Your task to perform on an android device: Open notification settings Image 0: 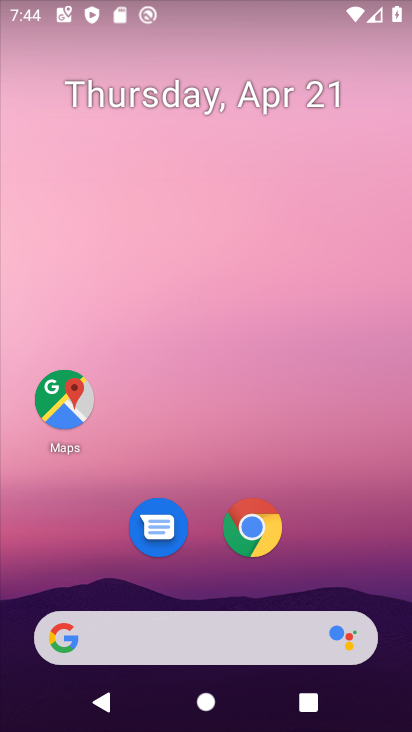
Step 0: drag from (208, 317) to (225, 0)
Your task to perform on an android device: Open notification settings Image 1: 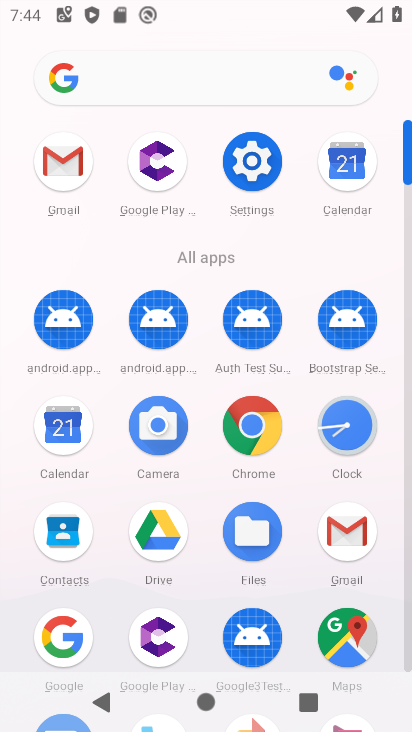
Step 1: click (248, 155)
Your task to perform on an android device: Open notification settings Image 2: 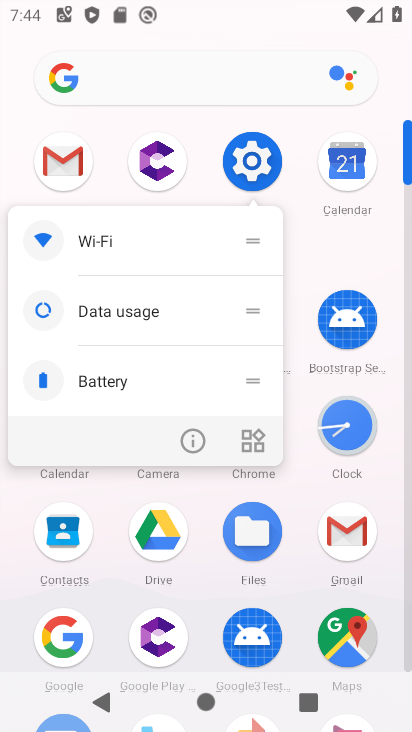
Step 2: click (241, 160)
Your task to perform on an android device: Open notification settings Image 3: 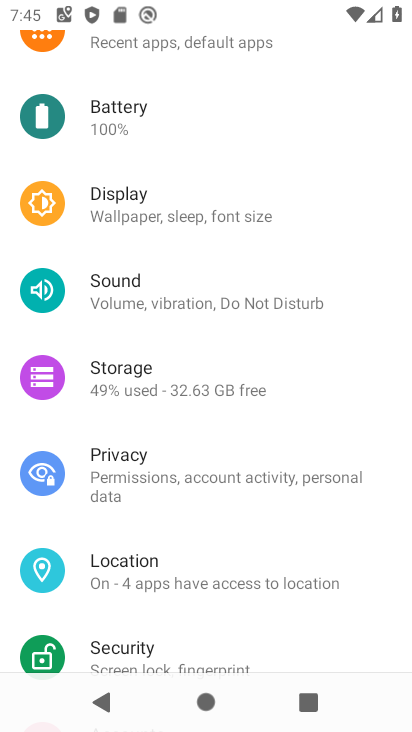
Step 3: drag from (207, 289) to (216, 588)
Your task to perform on an android device: Open notification settings Image 4: 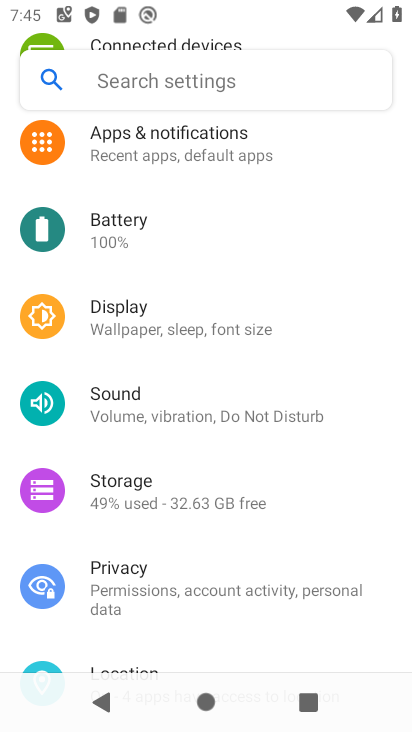
Step 4: click (274, 167)
Your task to perform on an android device: Open notification settings Image 5: 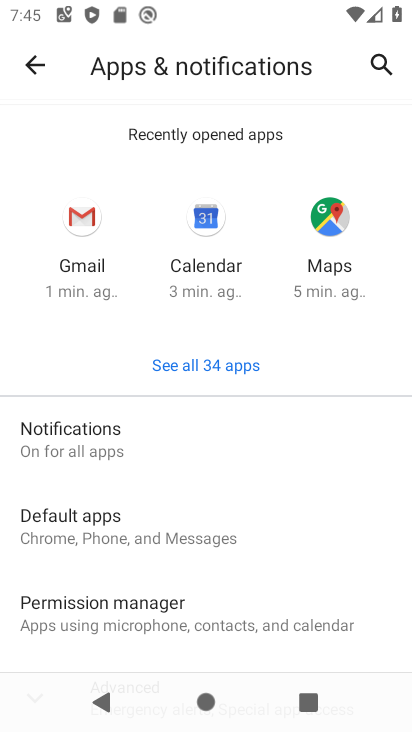
Step 5: click (180, 455)
Your task to perform on an android device: Open notification settings Image 6: 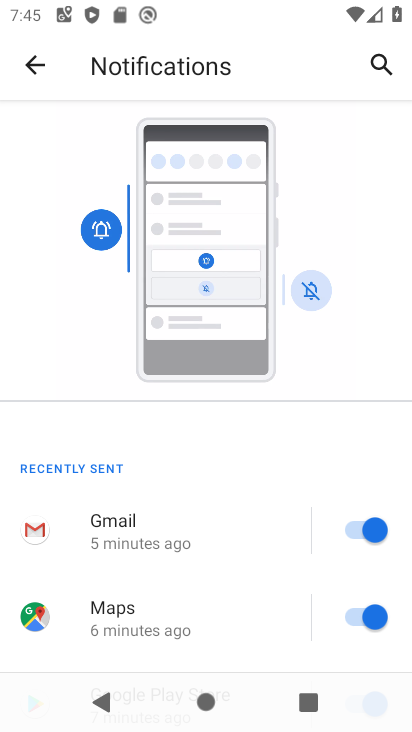
Step 6: click (369, 529)
Your task to perform on an android device: Open notification settings Image 7: 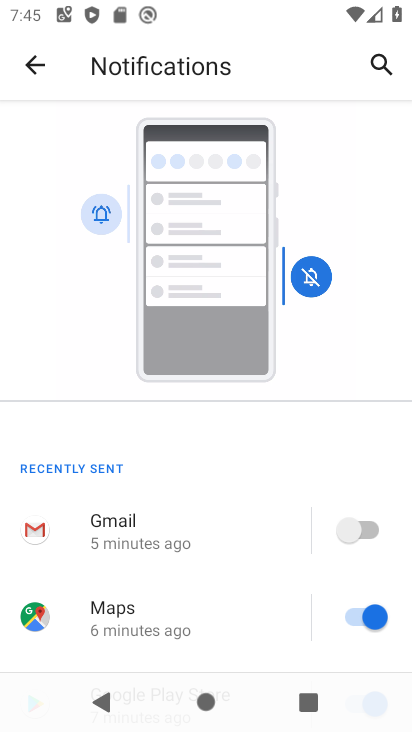
Step 7: task complete